Your task to perform on an android device: move an email to a new category in the gmail app Image 0: 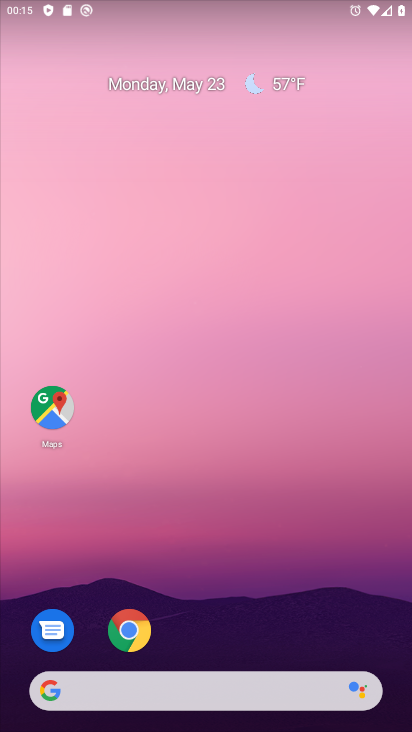
Step 0: drag from (292, 597) to (106, 48)
Your task to perform on an android device: move an email to a new category in the gmail app Image 1: 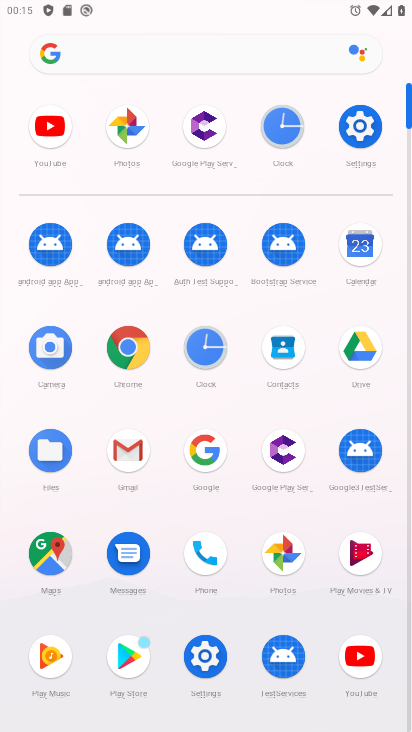
Step 1: click (132, 462)
Your task to perform on an android device: move an email to a new category in the gmail app Image 2: 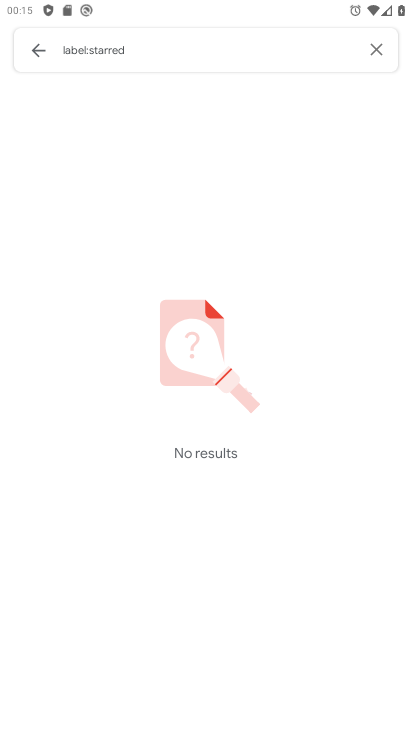
Step 2: click (378, 37)
Your task to perform on an android device: move an email to a new category in the gmail app Image 3: 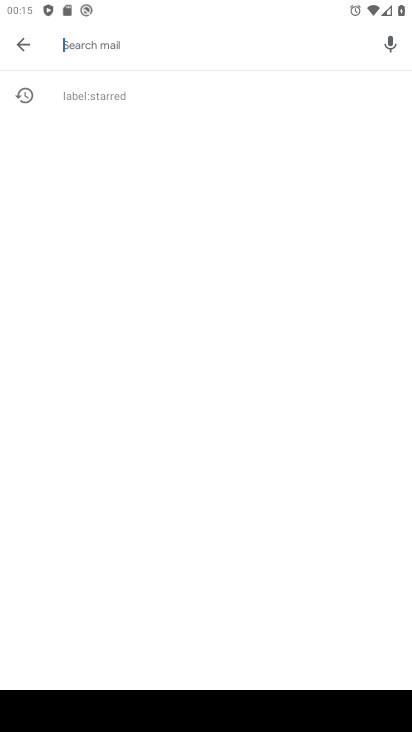
Step 3: click (19, 46)
Your task to perform on an android device: move an email to a new category in the gmail app Image 4: 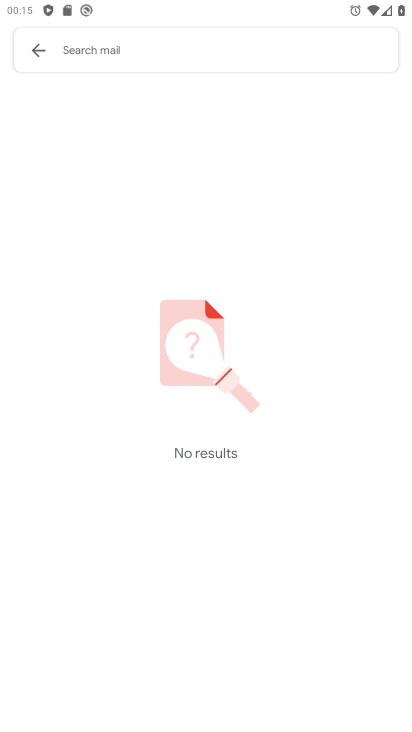
Step 4: click (38, 44)
Your task to perform on an android device: move an email to a new category in the gmail app Image 5: 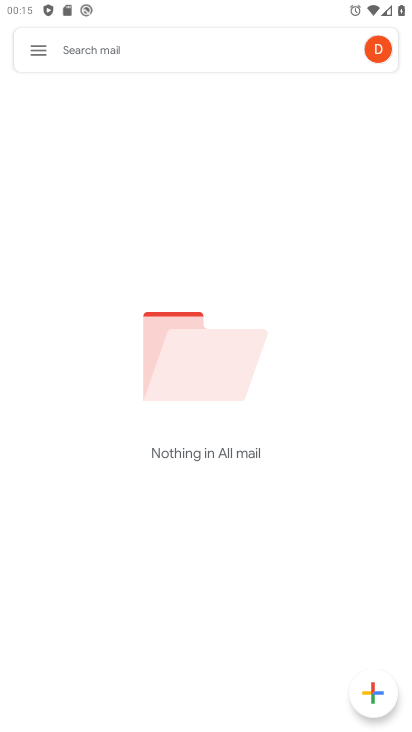
Step 5: click (44, 48)
Your task to perform on an android device: move an email to a new category in the gmail app Image 6: 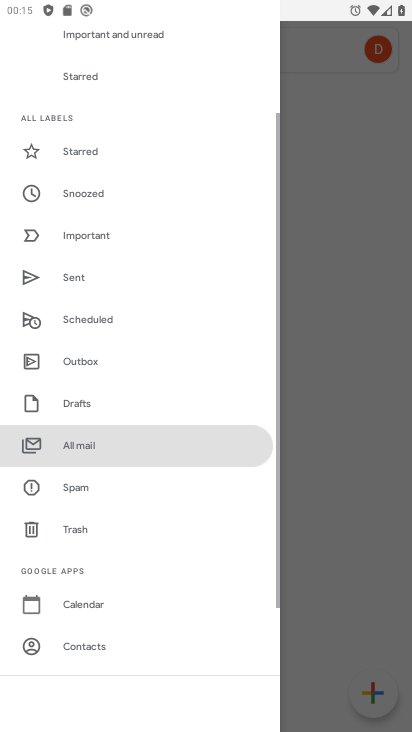
Step 6: click (128, 433)
Your task to perform on an android device: move an email to a new category in the gmail app Image 7: 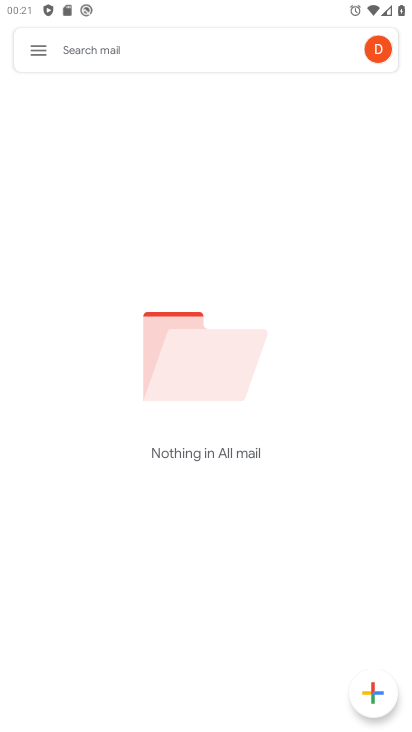
Step 7: task complete